Your task to perform on an android device: Clear all items from cart on target. Search for usb-b on target, select the first entry, add it to the cart, then select checkout. Image 0: 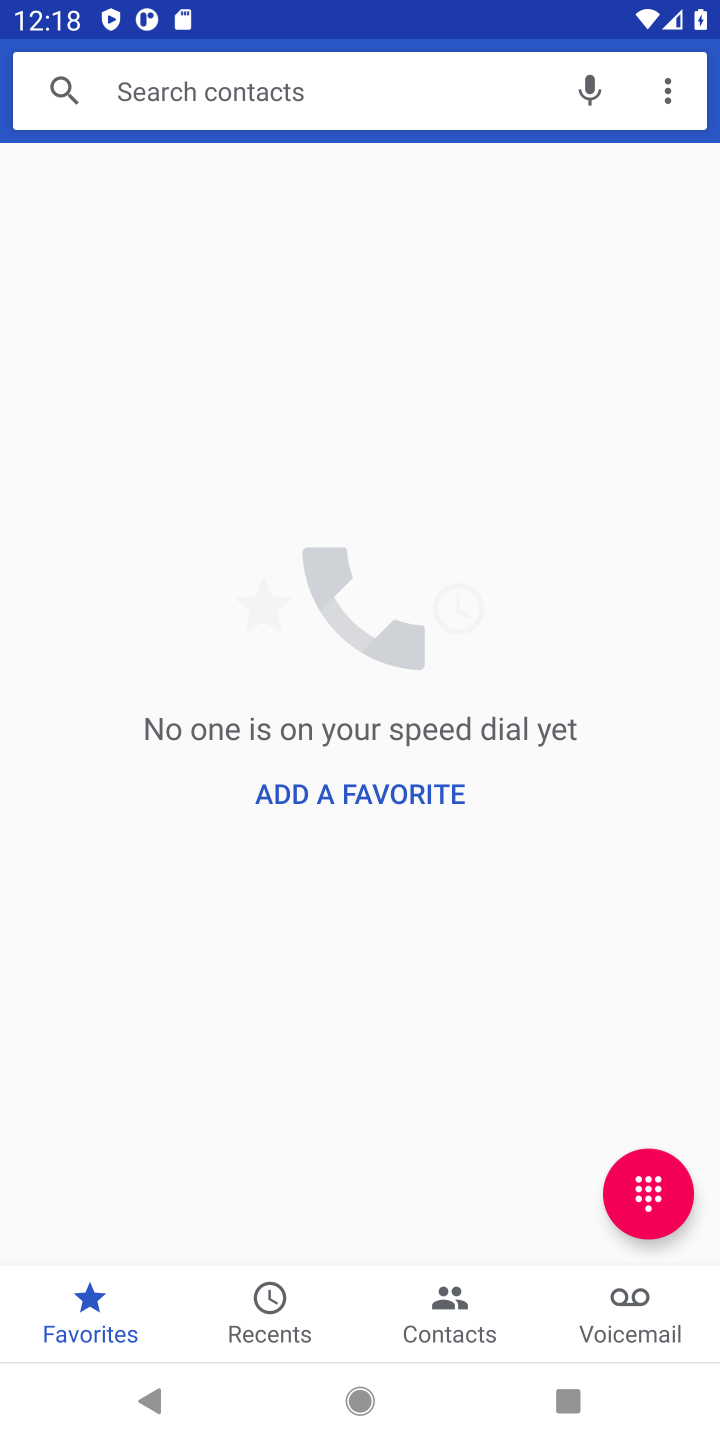
Step 0: press home button
Your task to perform on an android device: Clear all items from cart on target. Search for usb-b on target, select the first entry, add it to the cart, then select checkout. Image 1: 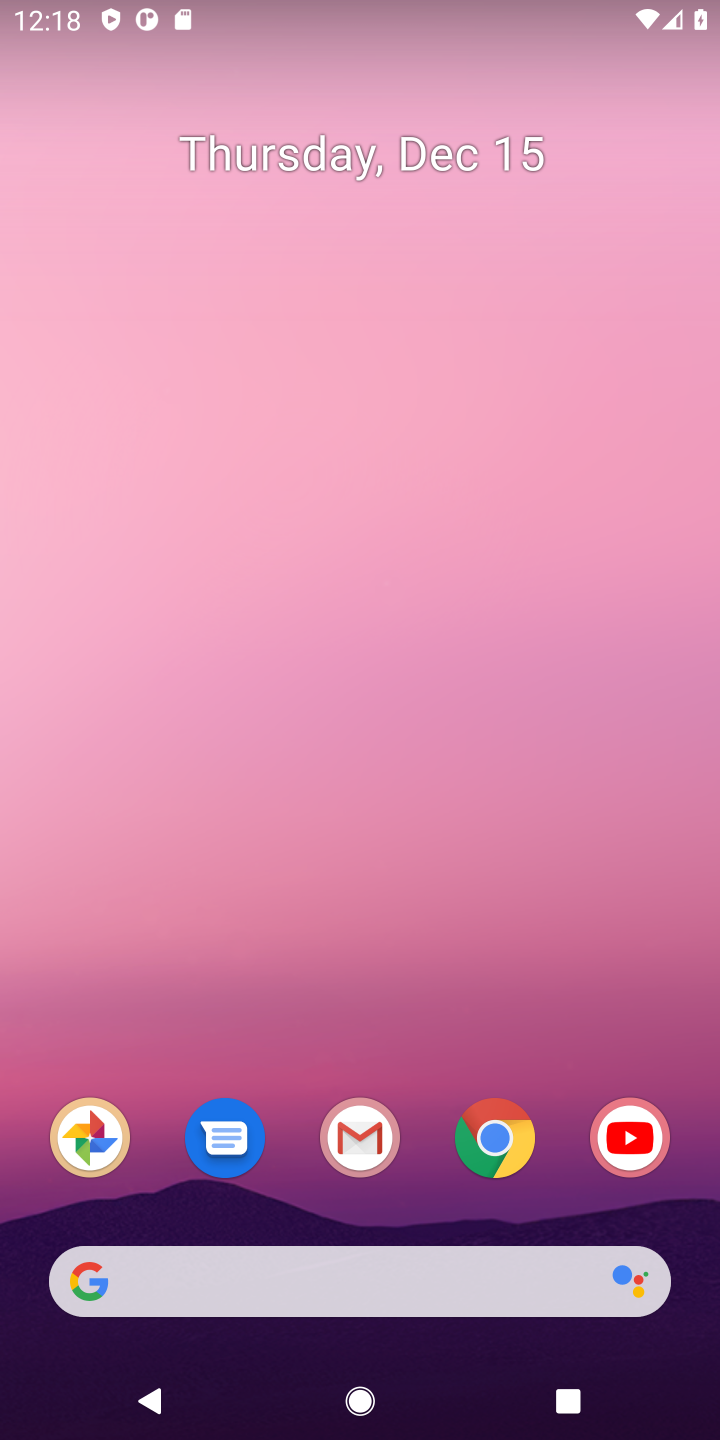
Step 1: click (502, 1138)
Your task to perform on an android device: Clear all items from cart on target. Search for usb-b on target, select the first entry, add it to the cart, then select checkout. Image 2: 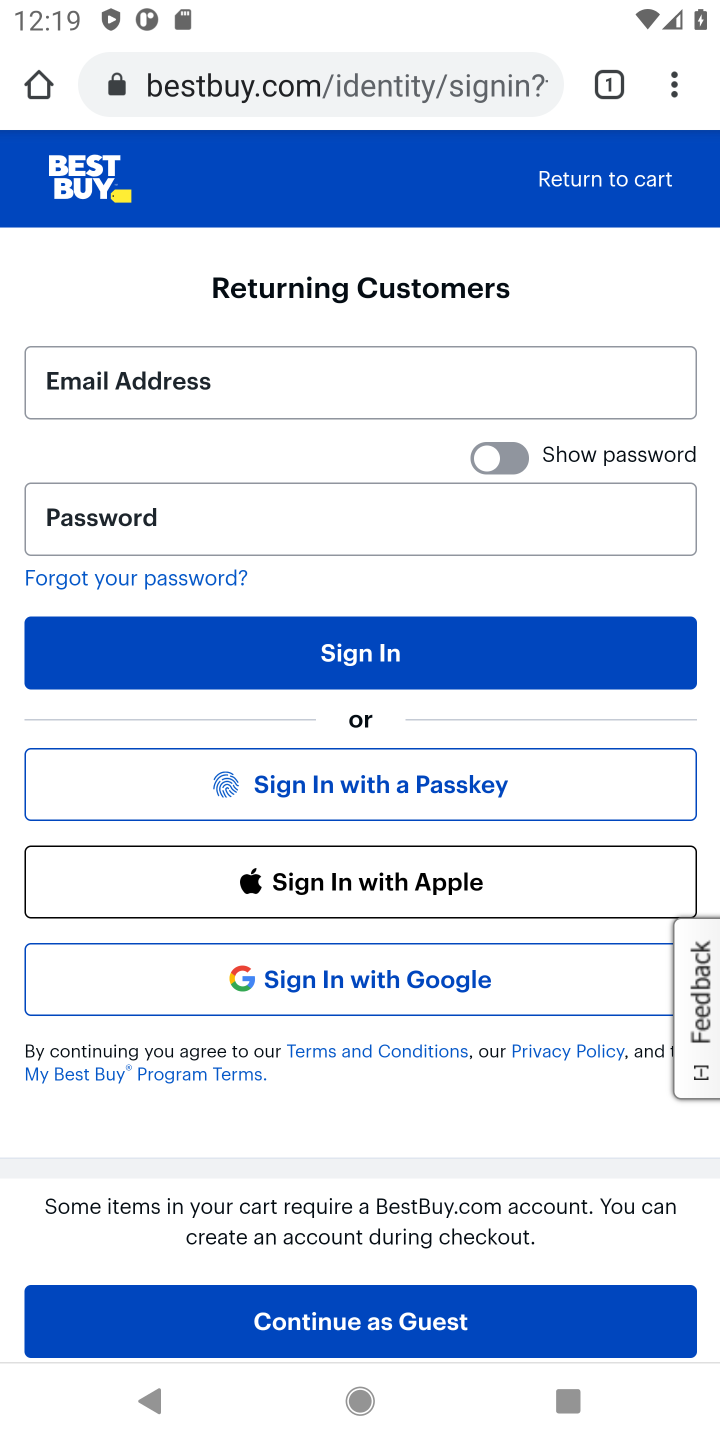
Step 2: click (235, 89)
Your task to perform on an android device: Clear all items from cart on target. Search for usb-b on target, select the first entry, add it to the cart, then select checkout. Image 3: 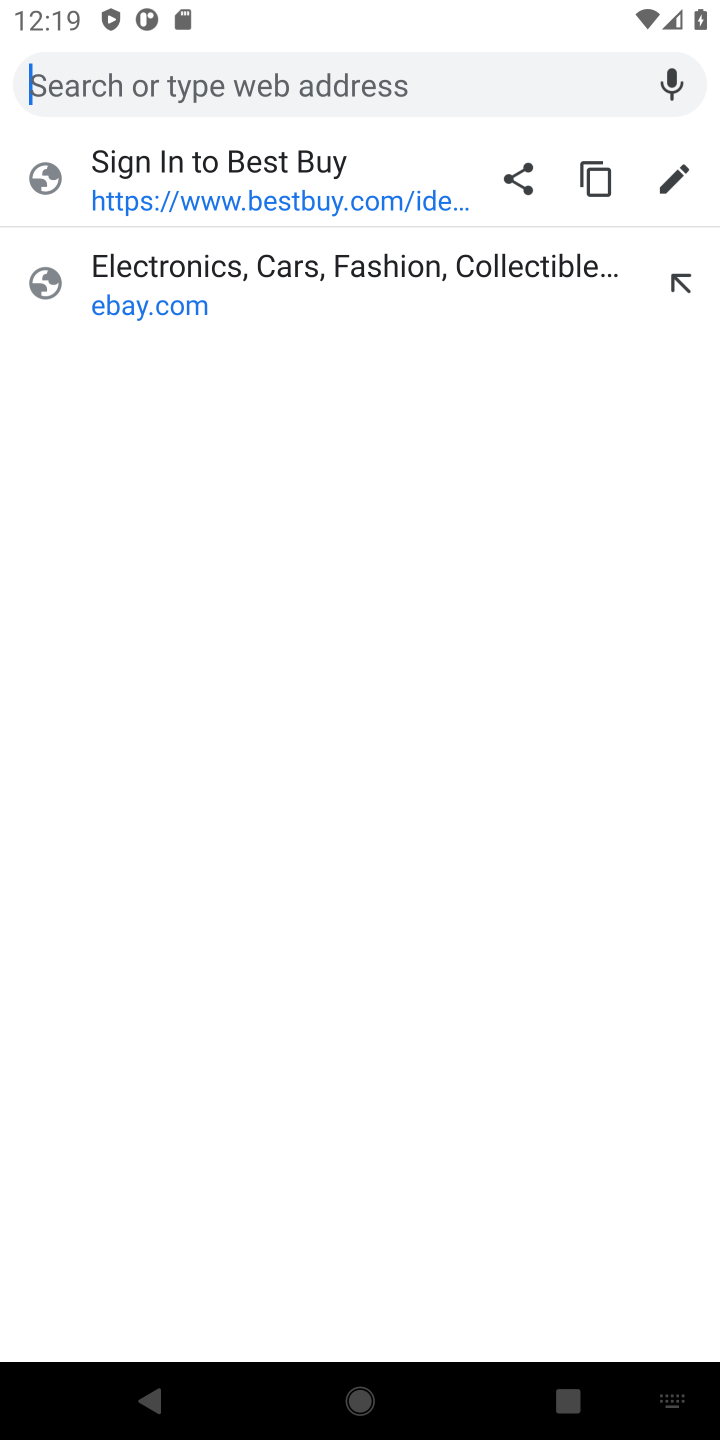
Step 3: type "target"
Your task to perform on an android device: Clear all items from cart on target. Search for usb-b on target, select the first entry, add it to the cart, then select checkout. Image 4: 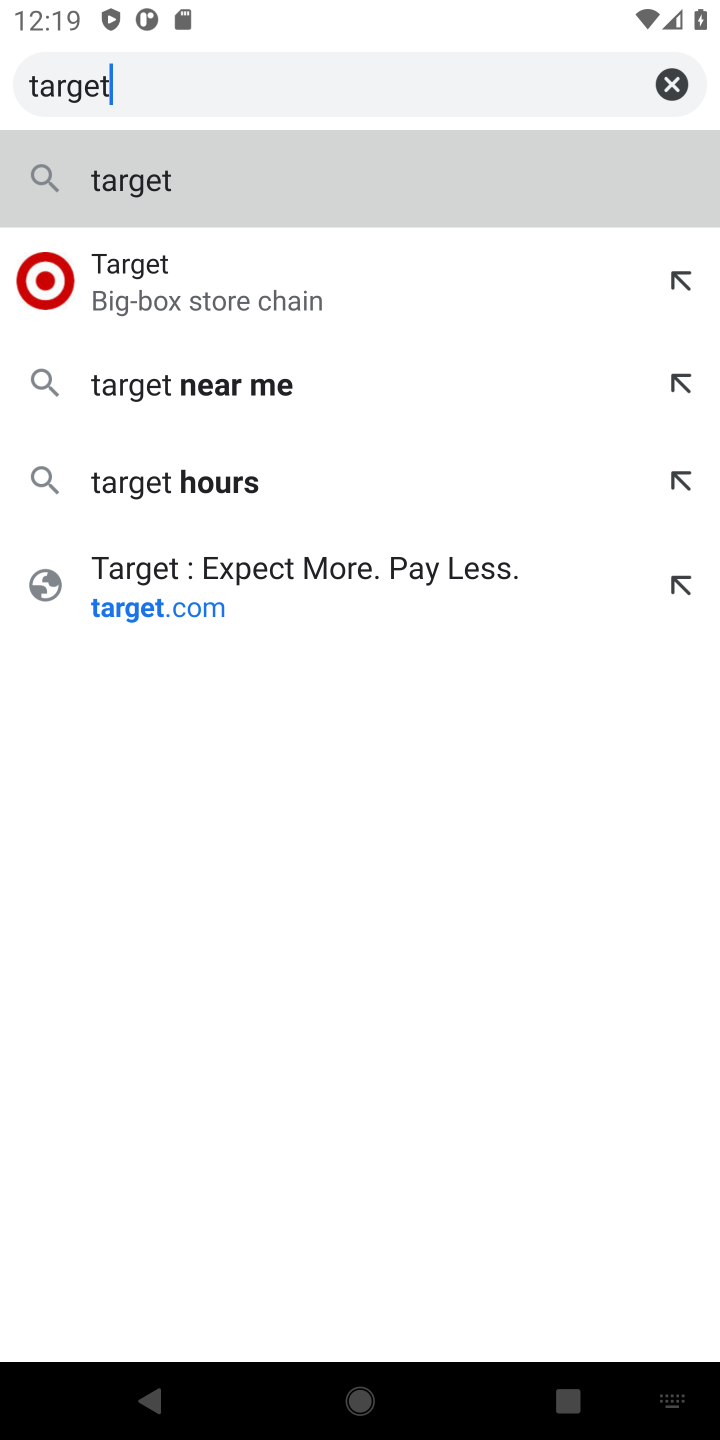
Step 4: click (208, 585)
Your task to perform on an android device: Clear all items from cart on target. Search for usb-b on target, select the first entry, add it to the cart, then select checkout. Image 5: 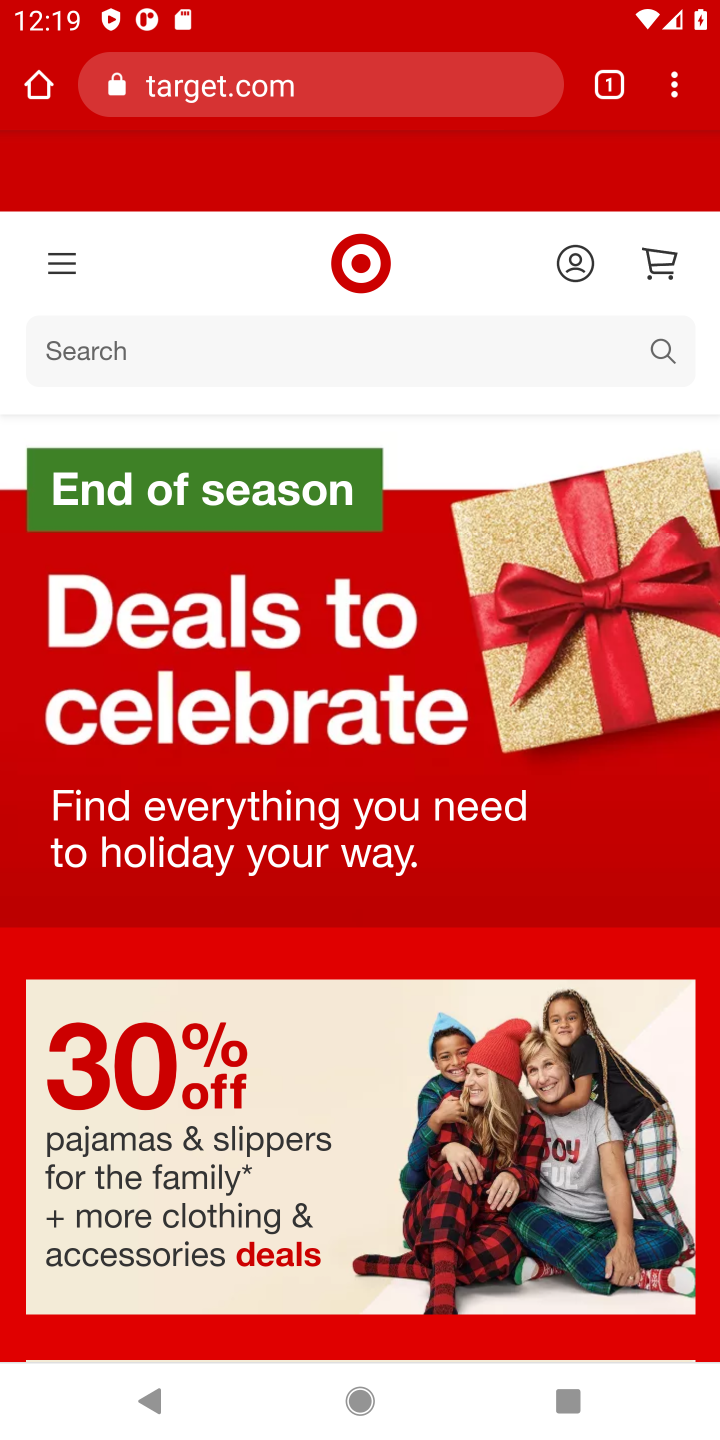
Step 5: click (663, 276)
Your task to perform on an android device: Clear all items from cart on target. Search for usb-b on target, select the first entry, add it to the cart, then select checkout. Image 6: 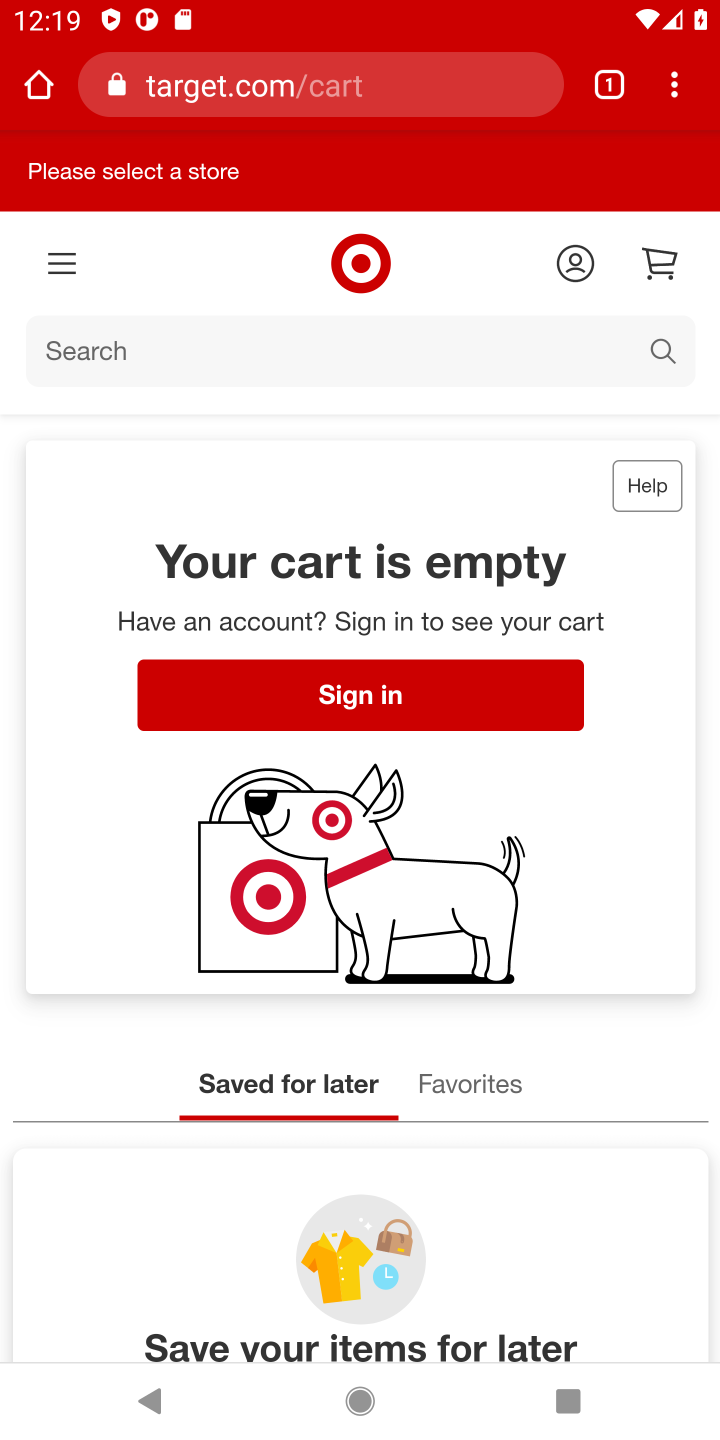
Step 6: click (434, 366)
Your task to perform on an android device: Clear all items from cart on target. Search for usb-b on target, select the first entry, add it to the cart, then select checkout. Image 7: 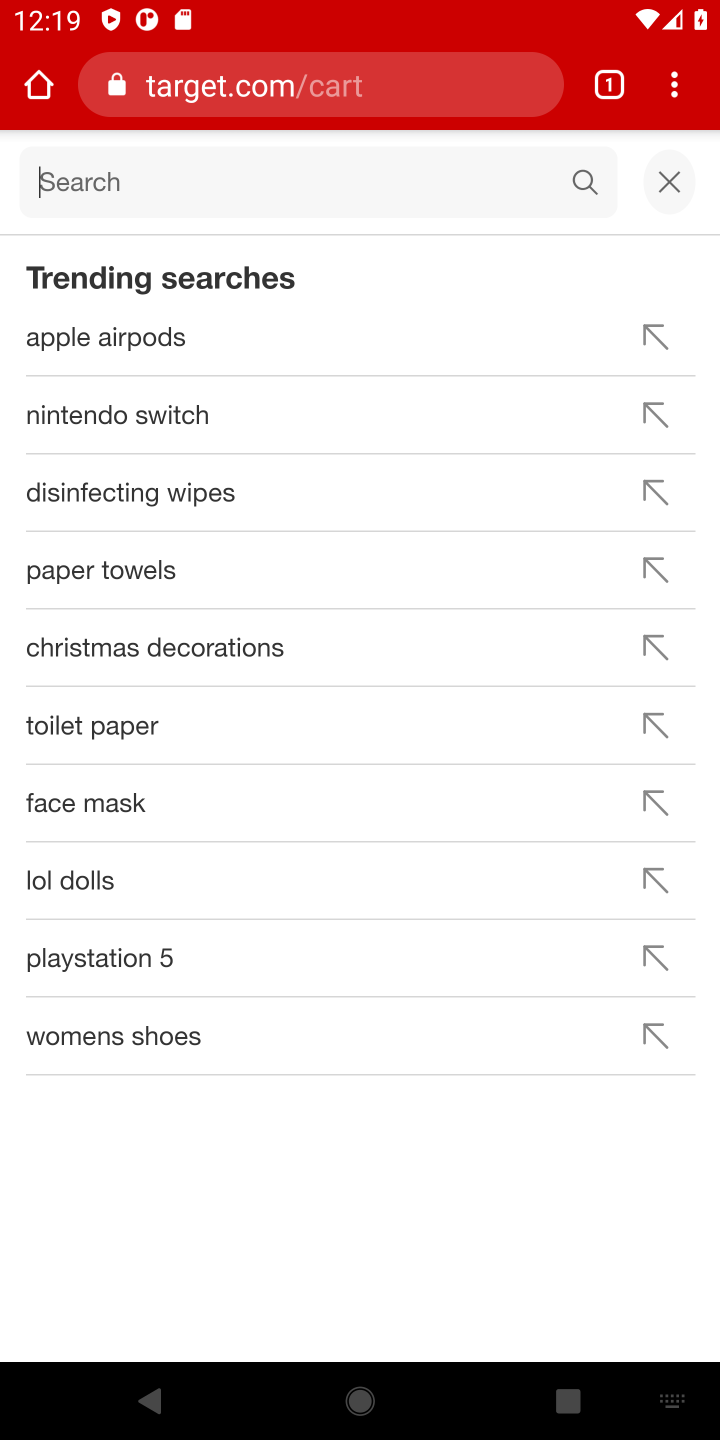
Step 7: type "usb-b"
Your task to perform on an android device: Clear all items from cart on target. Search for usb-b on target, select the first entry, add it to the cart, then select checkout. Image 8: 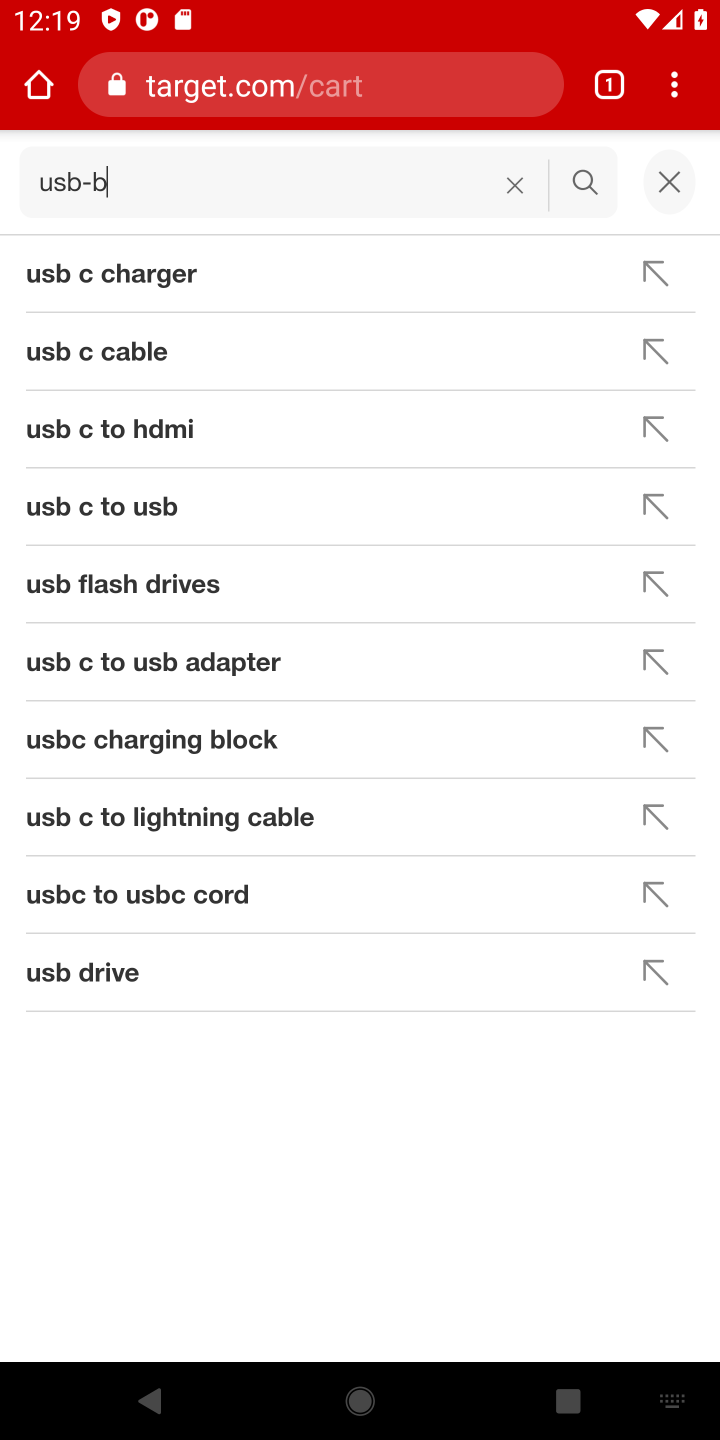
Step 8: press enter
Your task to perform on an android device: Clear all items from cart on target. Search for usb-b on target, select the first entry, add it to the cart, then select checkout. Image 9: 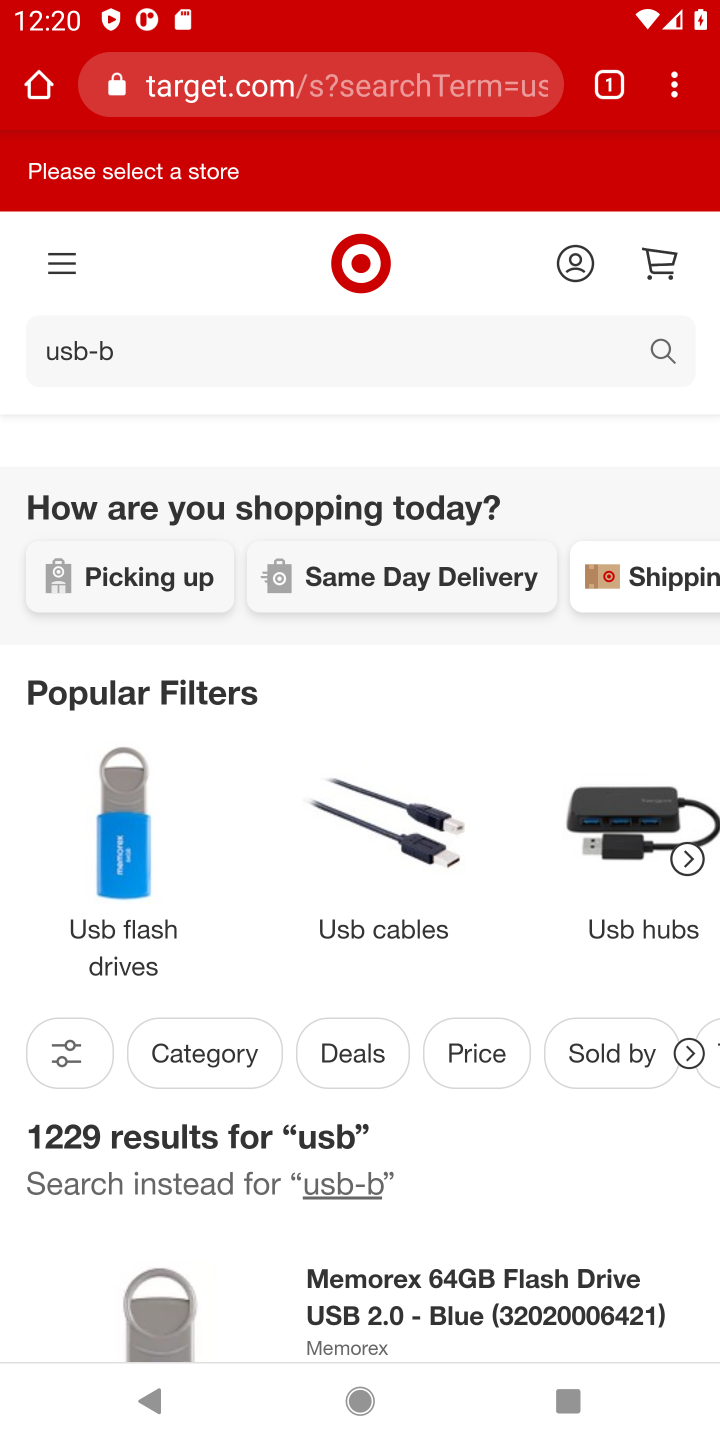
Step 9: task complete